Your task to perform on an android device: Open eBay Image 0: 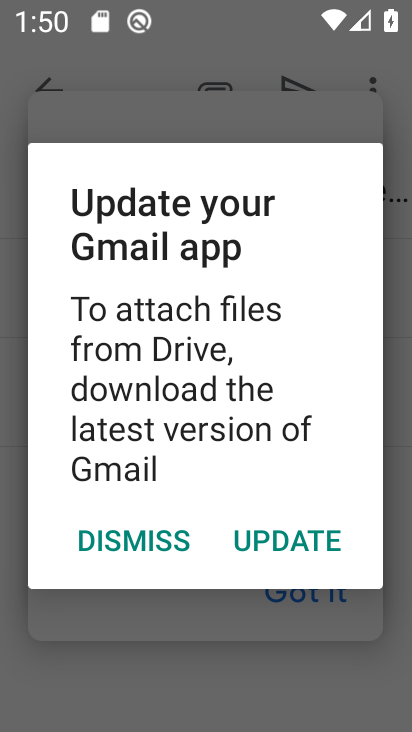
Step 0: press home button
Your task to perform on an android device: Open eBay Image 1: 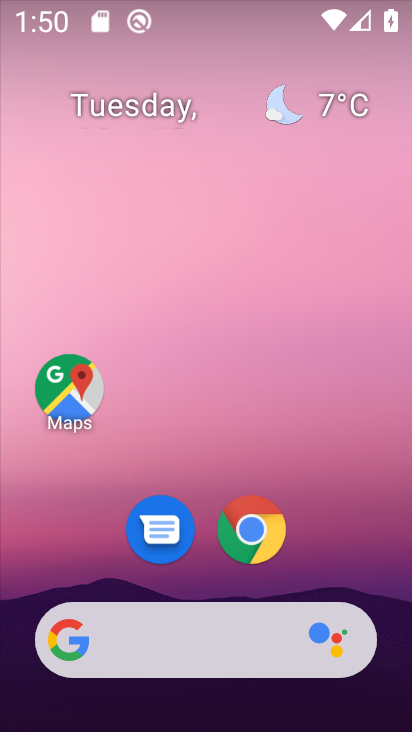
Step 1: drag from (283, 475) to (253, 4)
Your task to perform on an android device: Open eBay Image 2: 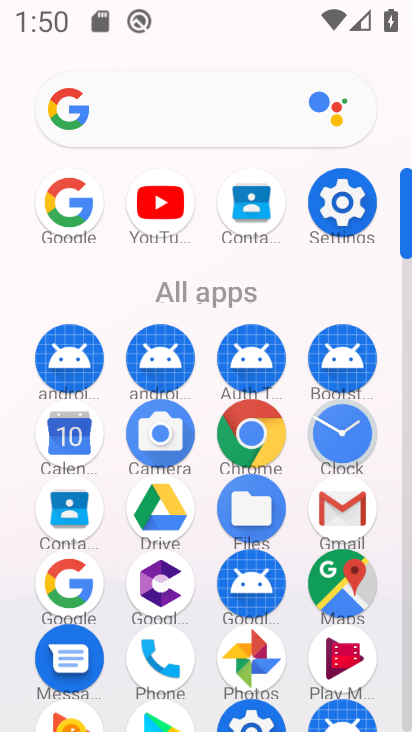
Step 2: click (64, 200)
Your task to perform on an android device: Open eBay Image 3: 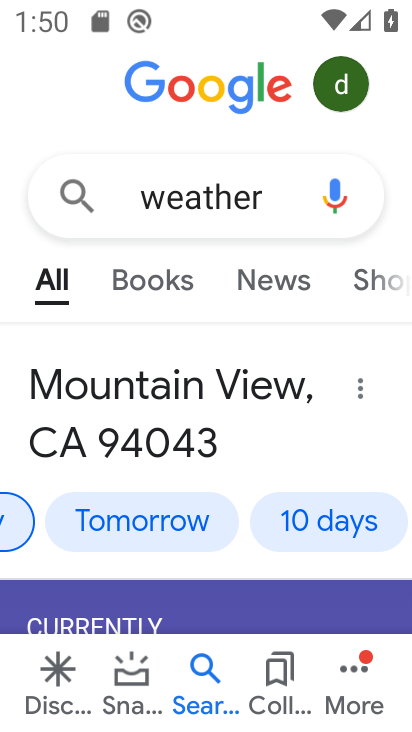
Step 3: click (261, 201)
Your task to perform on an android device: Open eBay Image 4: 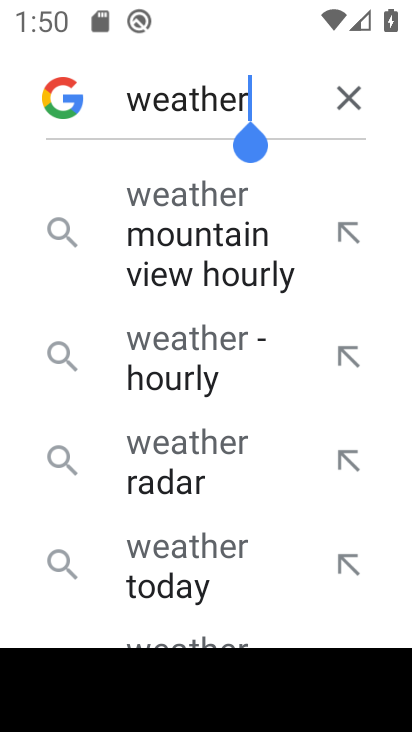
Step 4: click (348, 97)
Your task to perform on an android device: Open eBay Image 5: 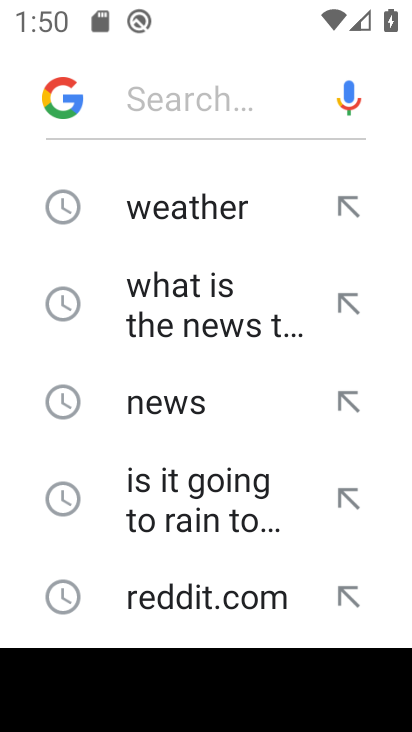
Step 5: click (197, 96)
Your task to perform on an android device: Open eBay Image 6: 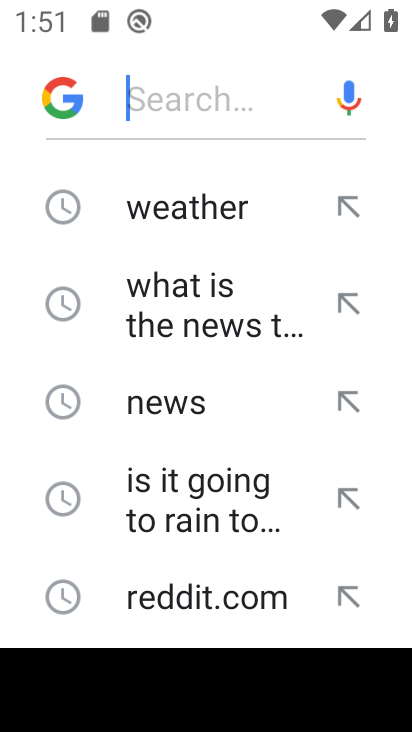
Step 6: type "eBay"
Your task to perform on an android device: Open eBay Image 7: 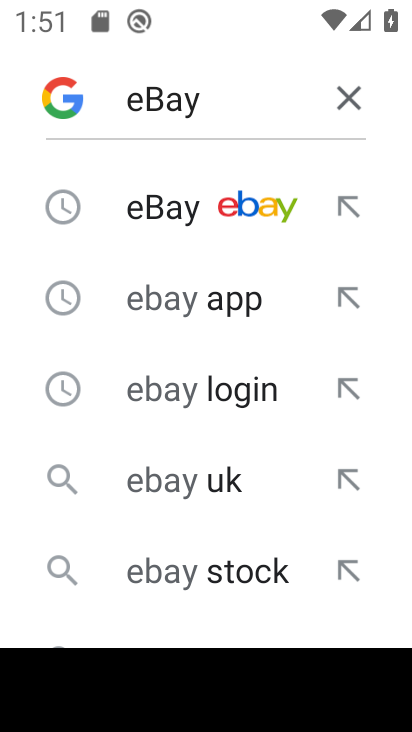
Step 7: click (165, 202)
Your task to perform on an android device: Open eBay Image 8: 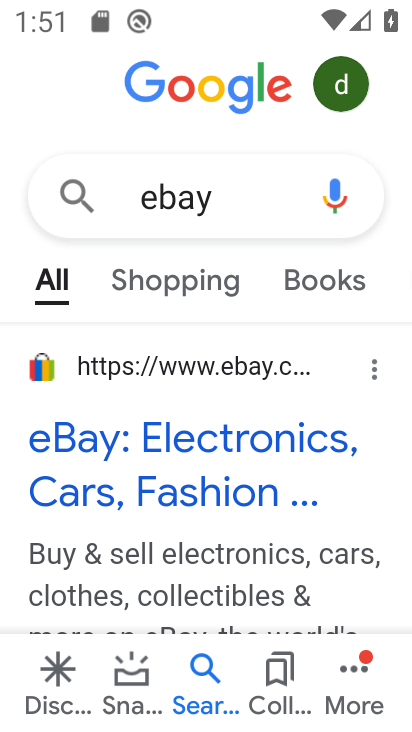
Step 8: click (155, 464)
Your task to perform on an android device: Open eBay Image 9: 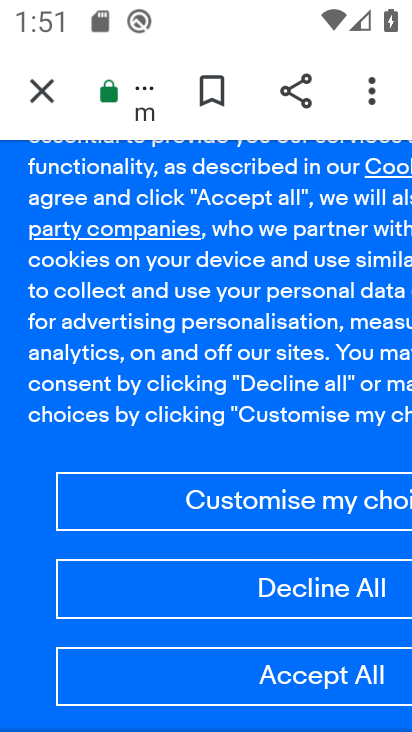
Step 9: click (341, 677)
Your task to perform on an android device: Open eBay Image 10: 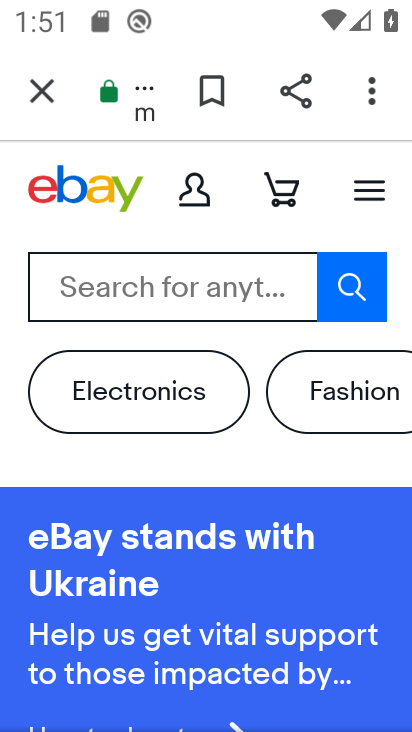
Step 10: task complete